Your task to perform on an android device: Open display settings Image 0: 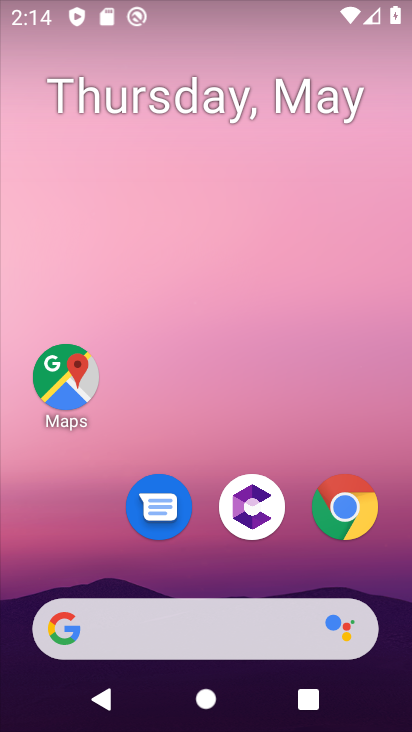
Step 0: press home button
Your task to perform on an android device: Open display settings Image 1: 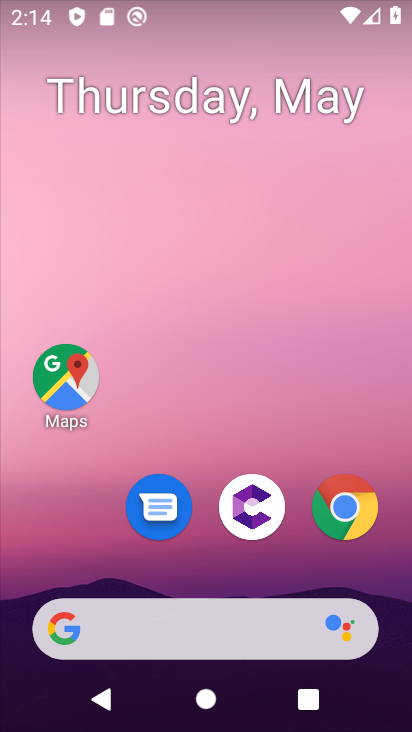
Step 1: drag from (300, 538) to (242, 185)
Your task to perform on an android device: Open display settings Image 2: 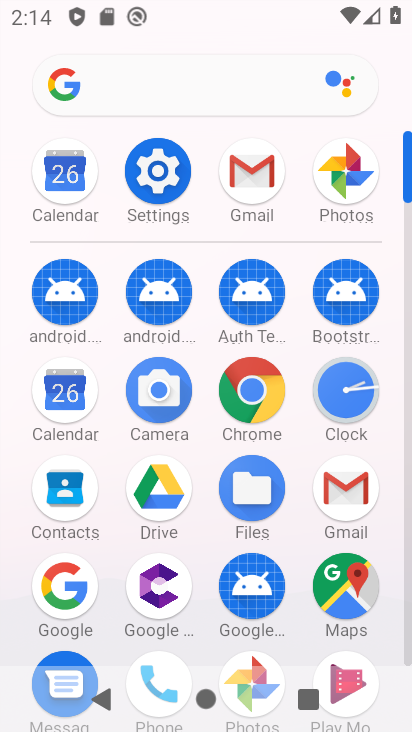
Step 2: click (157, 153)
Your task to perform on an android device: Open display settings Image 3: 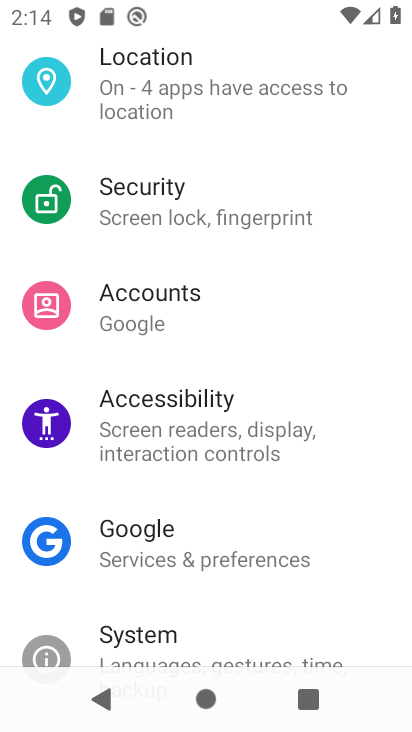
Step 3: drag from (166, 135) to (208, 565)
Your task to perform on an android device: Open display settings Image 4: 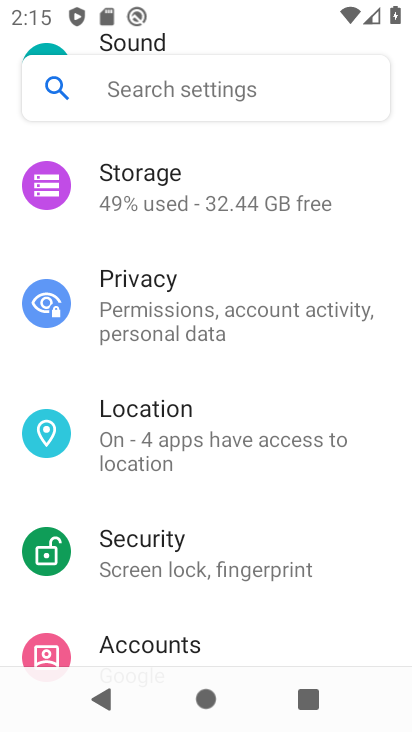
Step 4: drag from (241, 243) to (309, 467)
Your task to perform on an android device: Open display settings Image 5: 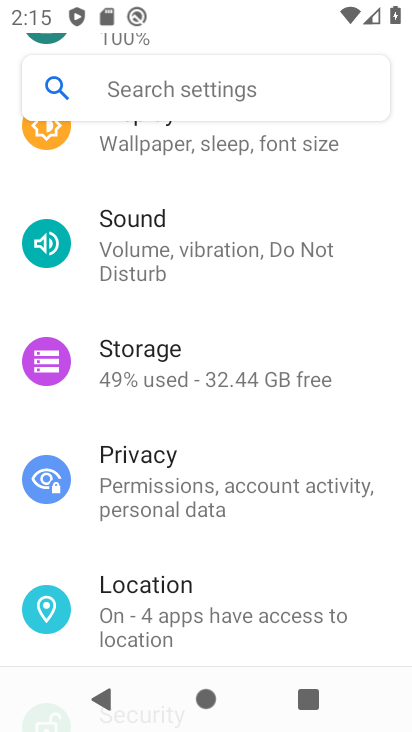
Step 5: drag from (233, 198) to (242, 475)
Your task to perform on an android device: Open display settings Image 6: 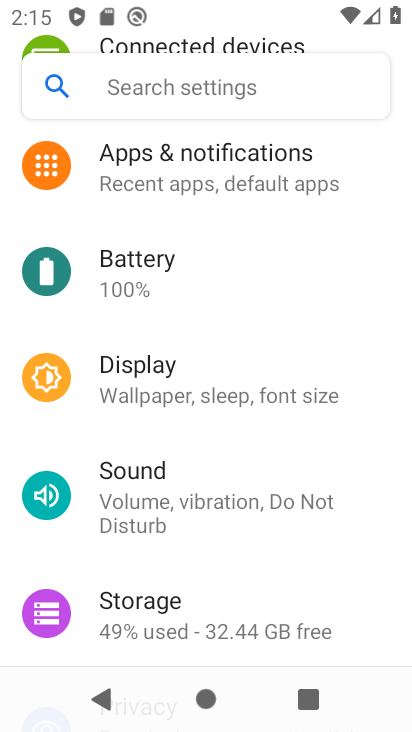
Step 6: click (147, 382)
Your task to perform on an android device: Open display settings Image 7: 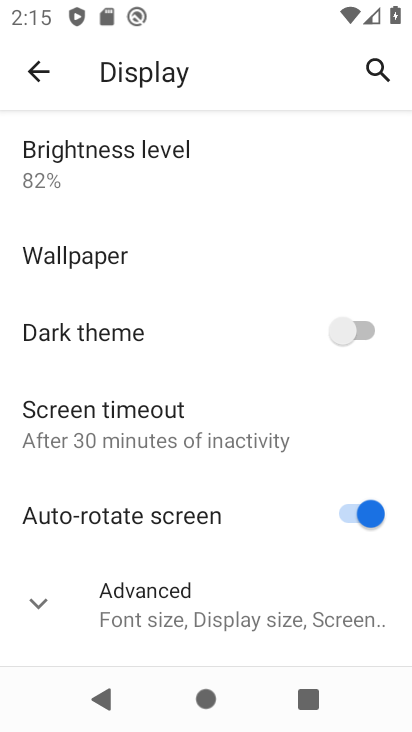
Step 7: task complete